Your task to perform on an android device: Go to wifi settings Image 0: 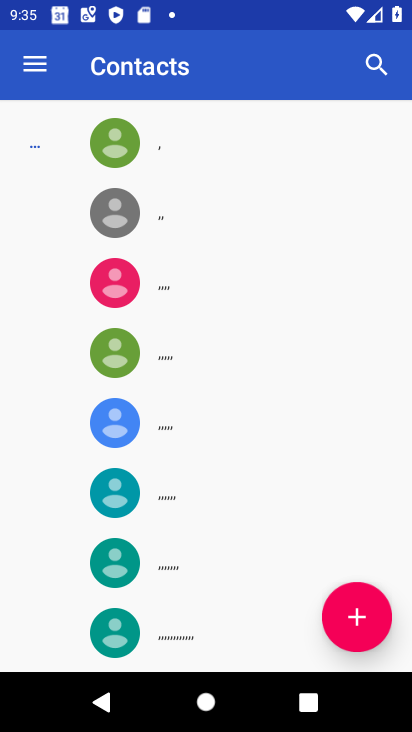
Step 0: press home button
Your task to perform on an android device: Go to wifi settings Image 1: 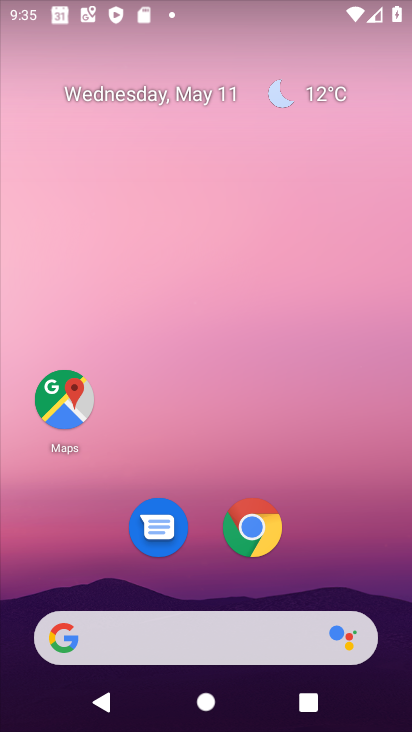
Step 1: drag from (359, 582) to (305, 19)
Your task to perform on an android device: Go to wifi settings Image 2: 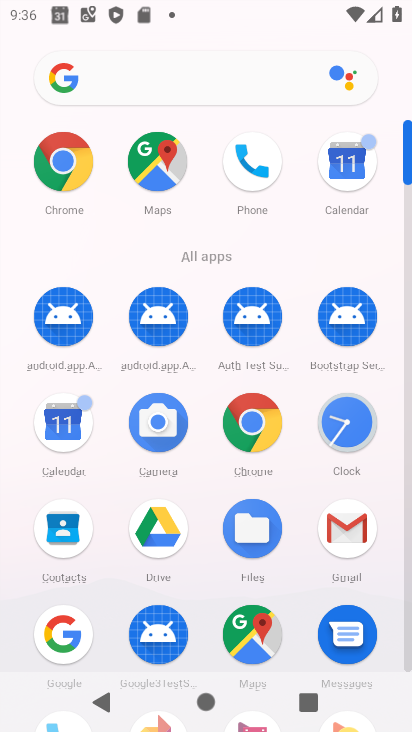
Step 2: drag from (388, 568) to (325, 5)
Your task to perform on an android device: Go to wifi settings Image 3: 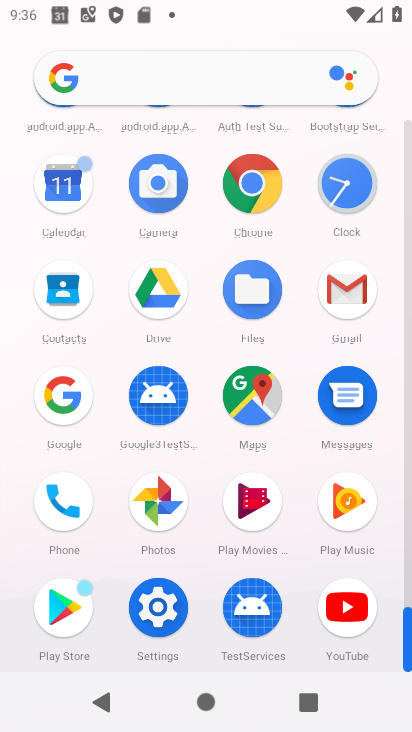
Step 3: click (164, 612)
Your task to perform on an android device: Go to wifi settings Image 4: 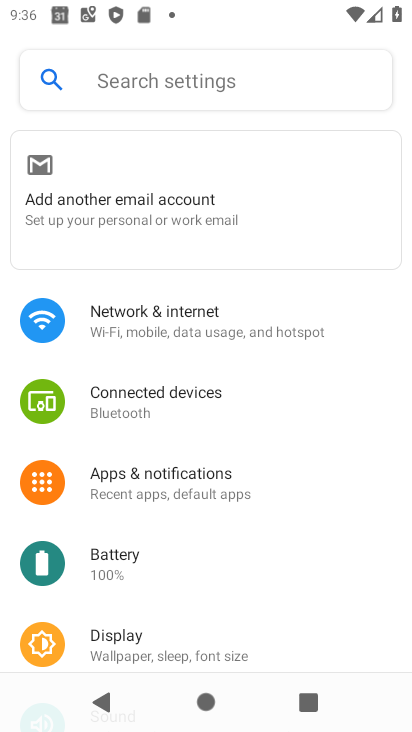
Step 4: click (176, 298)
Your task to perform on an android device: Go to wifi settings Image 5: 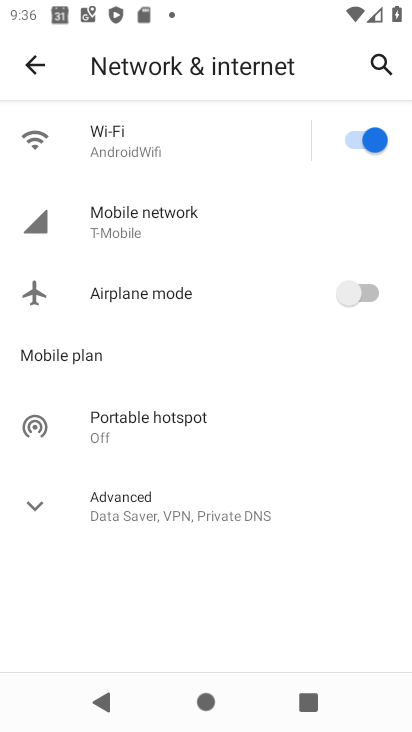
Step 5: click (76, 135)
Your task to perform on an android device: Go to wifi settings Image 6: 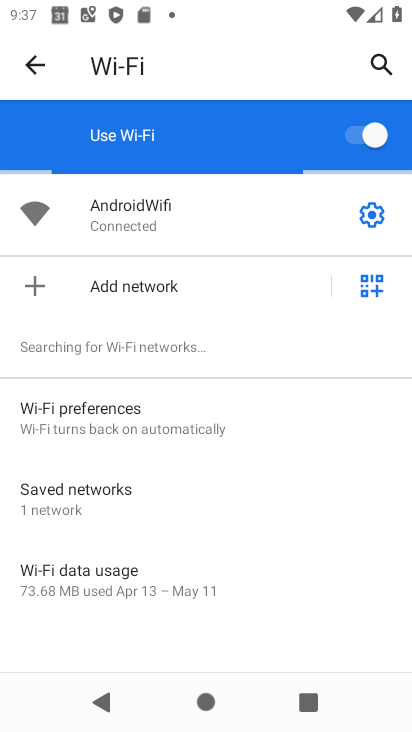
Step 6: task complete